Your task to perform on an android device: delete browsing data in the chrome app Image 0: 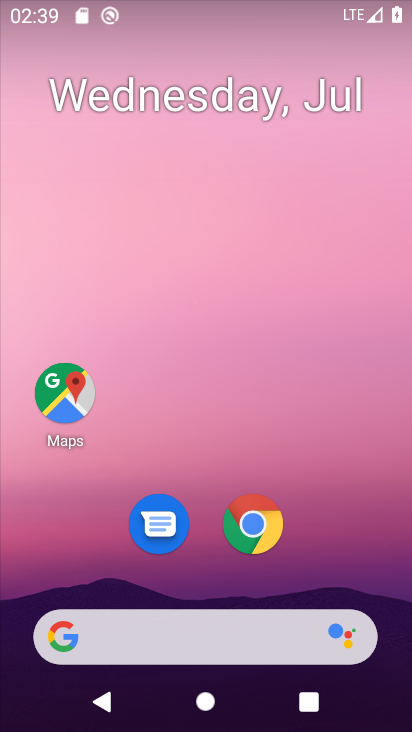
Step 0: click (264, 533)
Your task to perform on an android device: delete browsing data in the chrome app Image 1: 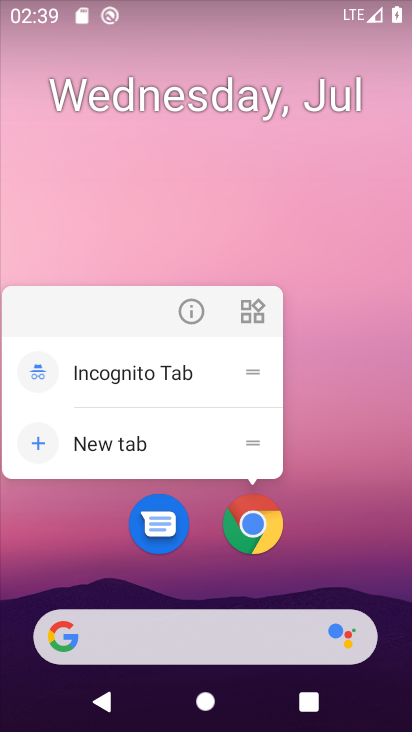
Step 1: click (264, 535)
Your task to perform on an android device: delete browsing data in the chrome app Image 2: 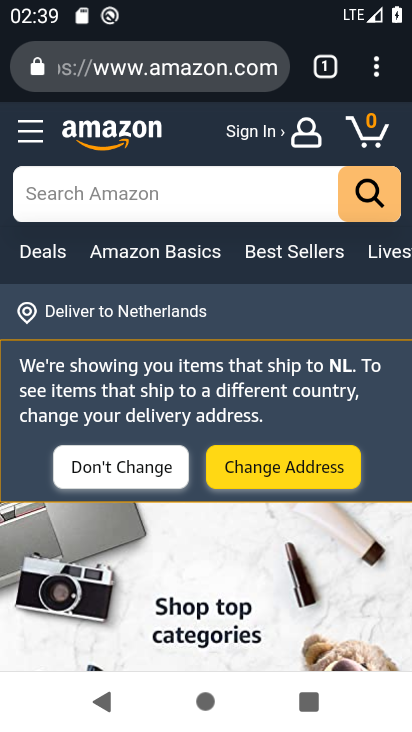
Step 2: click (375, 72)
Your task to perform on an android device: delete browsing data in the chrome app Image 3: 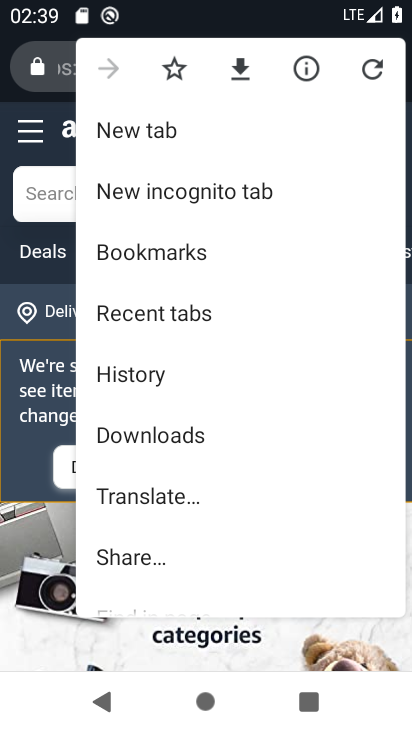
Step 3: click (147, 365)
Your task to perform on an android device: delete browsing data in the chrome app Image 4: 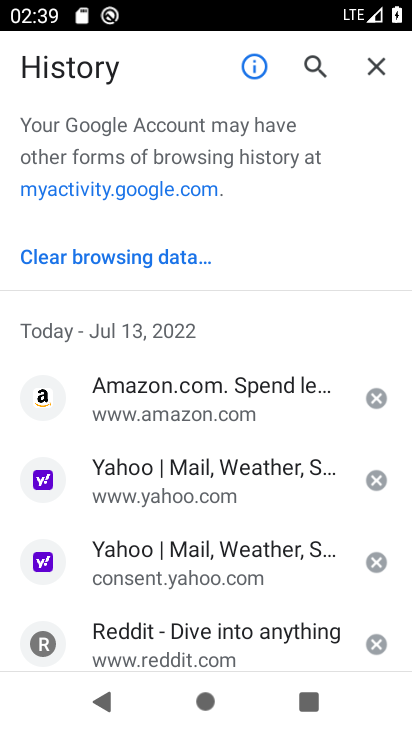
Step 4: click (146, 253)
Your task to perform on an android device: delete browsing data in the chrome app Image 5: 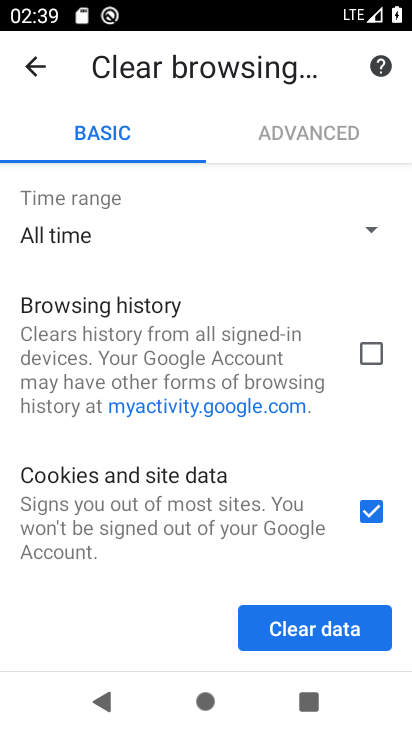
Step 5: click (370, 339)
Your task to perform on an android device: delete browsing data in the chrome app Image 6: 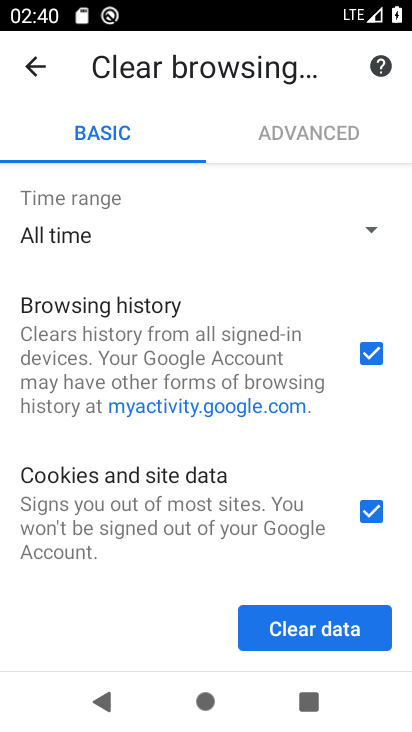
Step 6: drag from (289, 470) to (282, 207)
Your task to perform on an android device: delete browsing data in the chrome app Image 7: 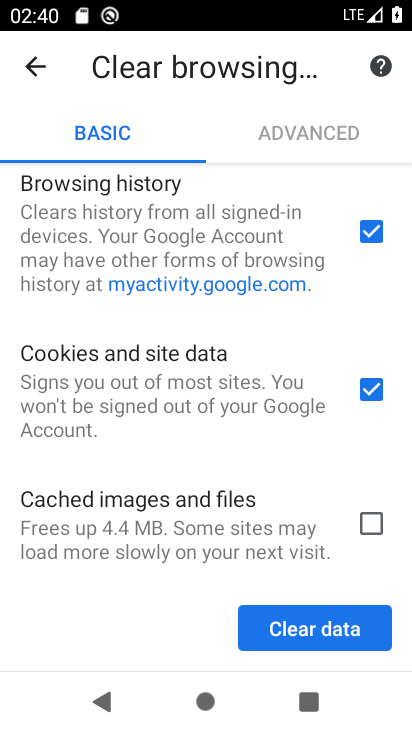
Step 7: click (367, 515)
Your task to perform on an android device: delete browsing data in the chrome app Image 8: 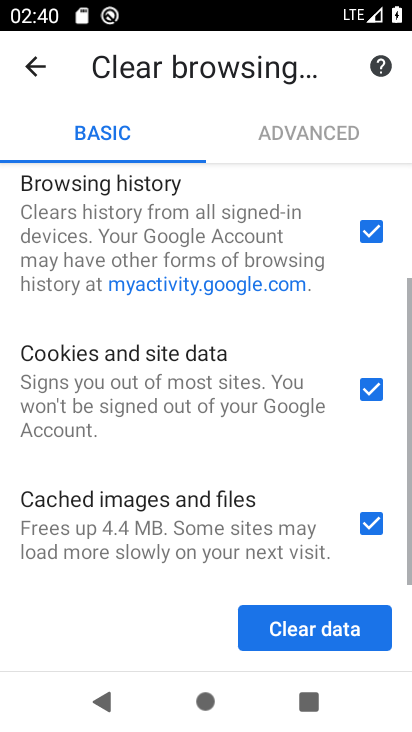
Step 8: click (357, 623)
Your task to perform on an android device: delete browsing data in the chrome app Image 9: 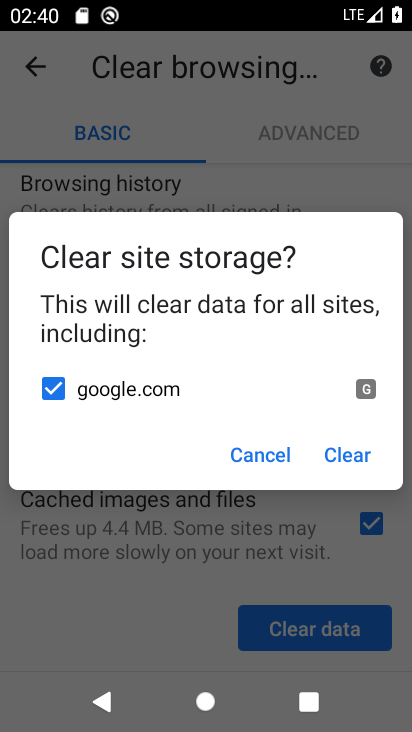
Step 9: click (361, 452)
Your task to perform on an android device: delete browsing data in the chrome app Image 10: 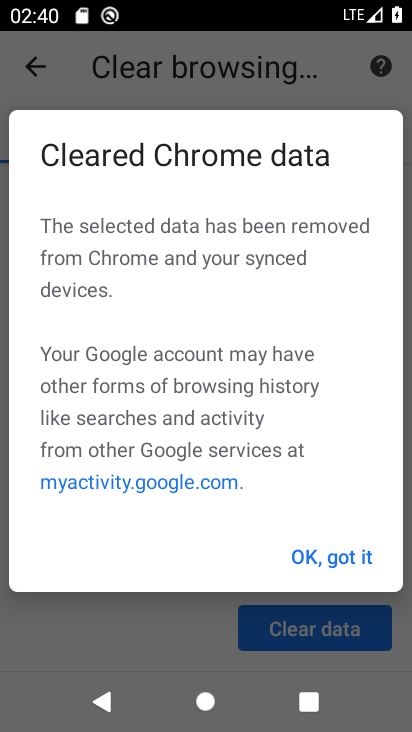
Step 10: click (339, 556)
Your task to perform on an android device: delete browsing data in the chrome app Image 11: 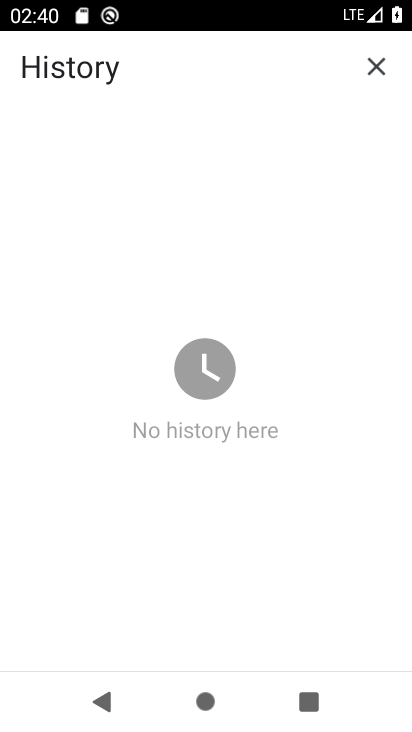
Step 11: task complete